Your task to perform on an android device: make emails show in primary in the gmail app Image 0: 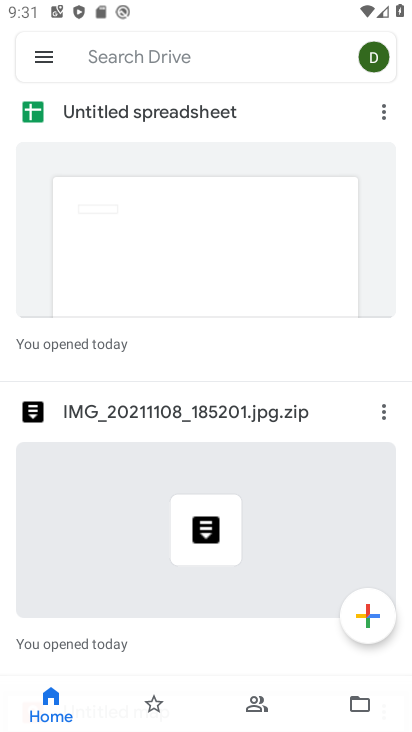
Step 0: press home button
Your task to perform on an android device: make emails show in primary in the gmail app Image 1: 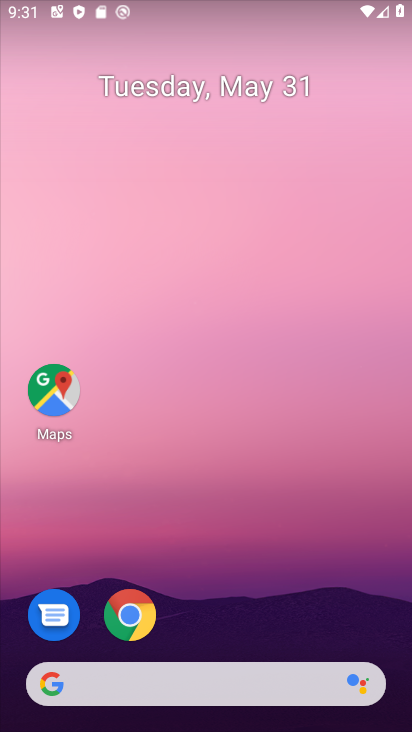
Step 1: drag from (381, 650) to (276, 68)
Your task to perform on an android device: make emails show in primary in the gmail app Image 2: 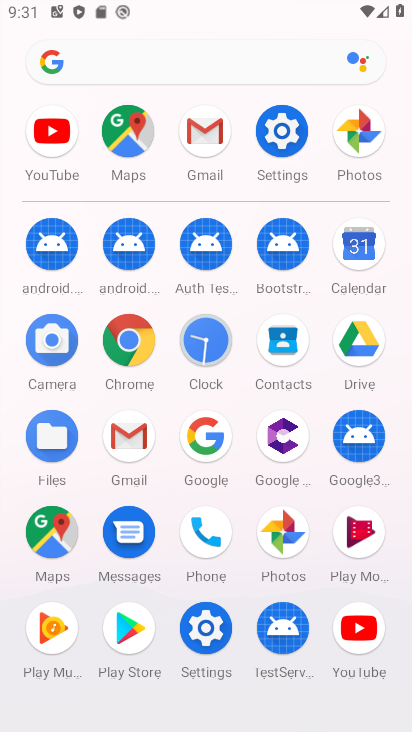
Step 2: click (128, 433)
Your task to perform on an android device: make emails show in primary in the gmail app Image 3: 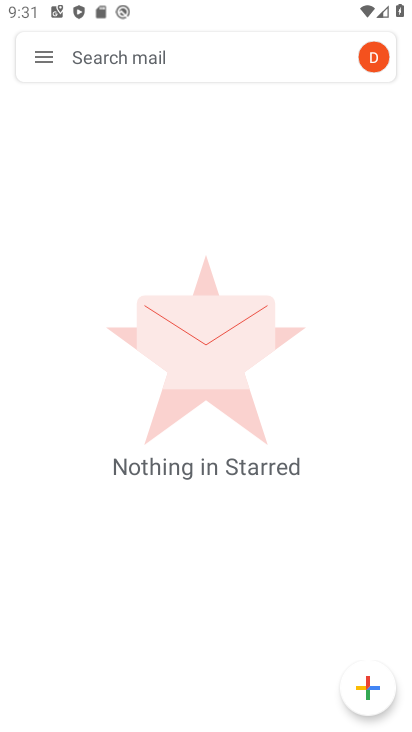
Step 3: click (42, 56)
Your task to perform on an android device: make emails show in primary in the gmail app Image 4: 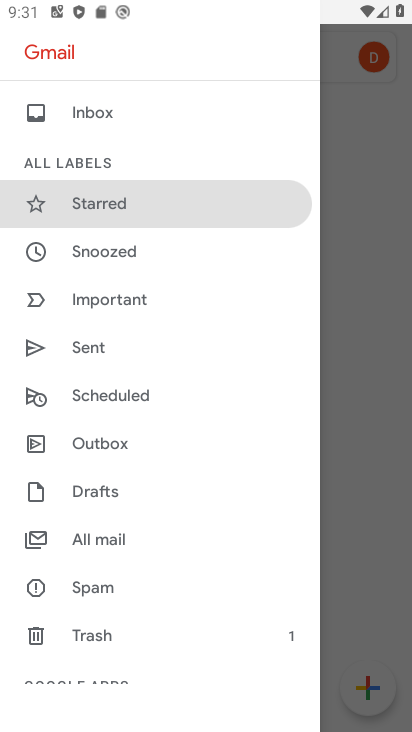
Step 4: drag from (167, 629) to (194, 231)
Your task to perform on an android device: make emails show in primary in the gmail app Image 5: 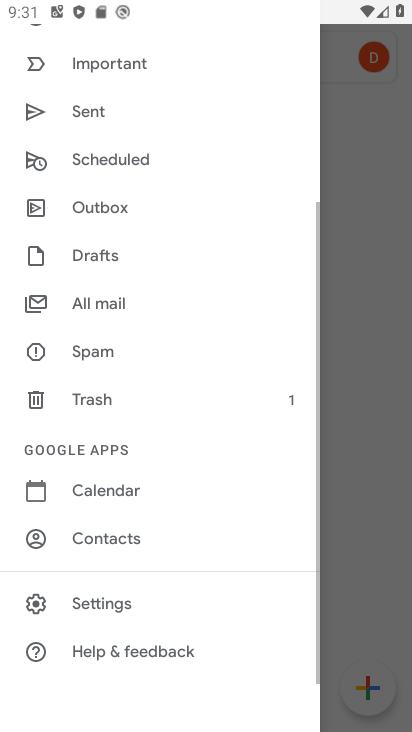
Step 5: click (108, 600)
Your task to perform on an android device: make emails show in primary in the gmail app Image 6: 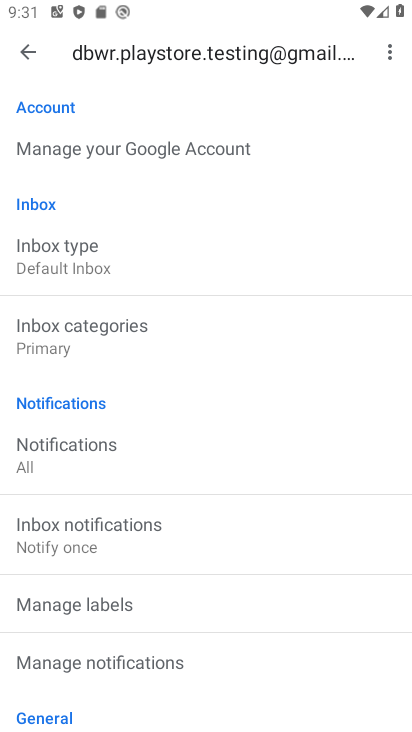
Step 6: click (51, 315)
Your task to perform on an android device: make emails show in primary in the gmail app Image 7: 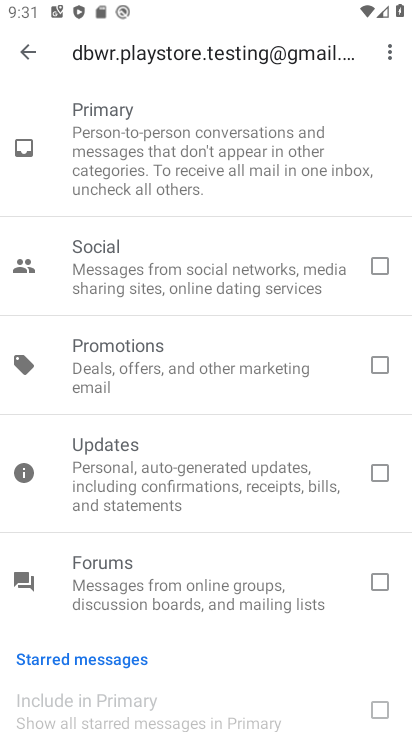
Step 7: task complete